Your task to perform on an android device: Go to Yahoo.com Image 0: 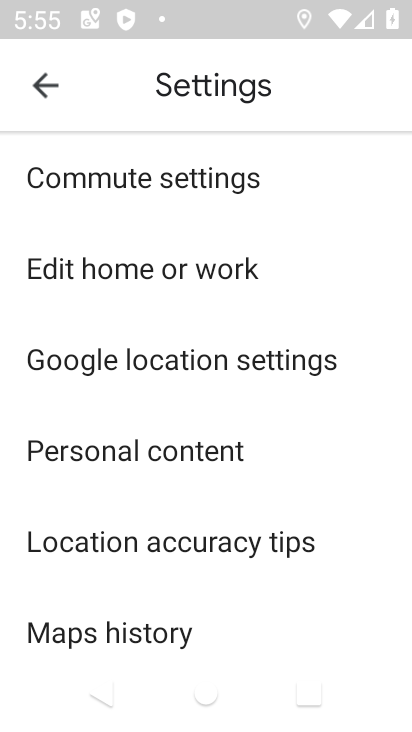
Step 0: press back button
Your task to perform on an android device: Go to Yahoo.com Image 1: 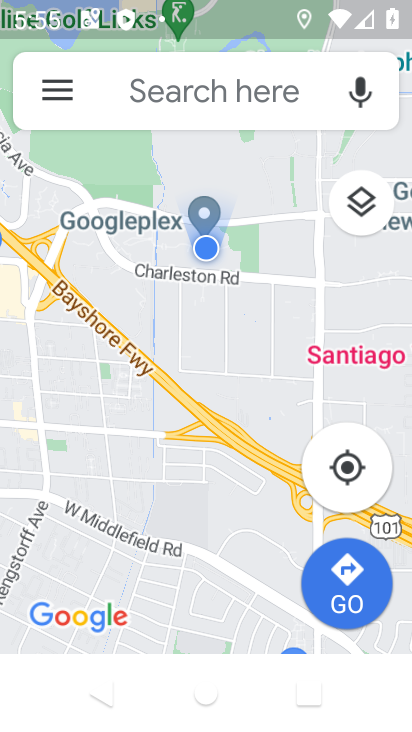
Step 1: press back button
Your task to perform on an android device: Go to Yahoo.com Image 2: 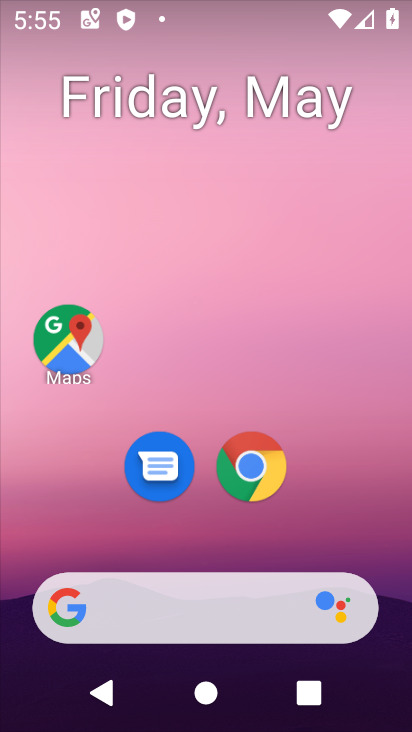
Step 2: click (252, 467)
Your task to perform on an android device: Go to Yahoo.com Image 3: 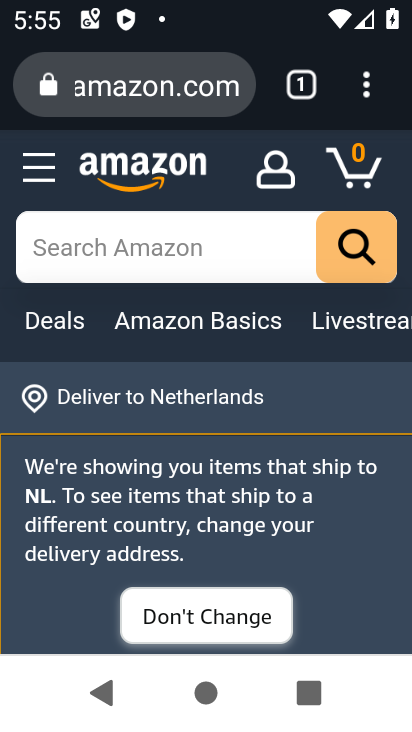
Step 3: click (137, 92)
Your task to perform on an android device: Go to Yahoo.com Image 4: 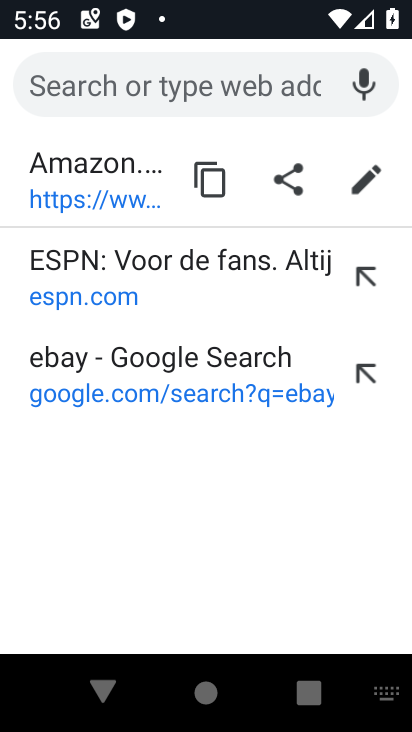
Step 4: type "Yahoo.com"
Your task to perform on an android device: Go to Yahoo.com Image 5: 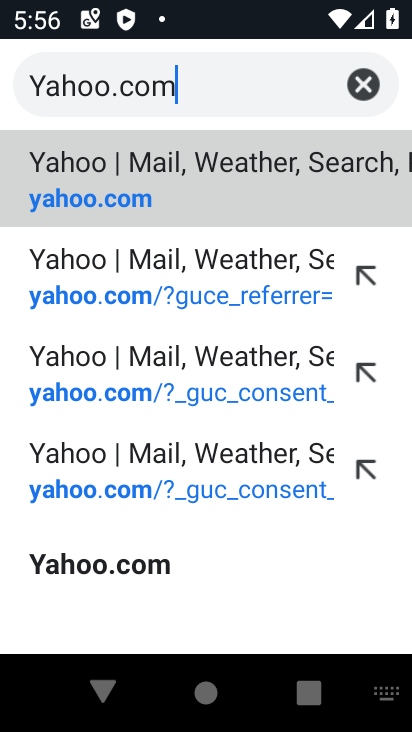
Step 5: type ""
Your task to perform on an android device: Go to Yahoo.com Image 6: 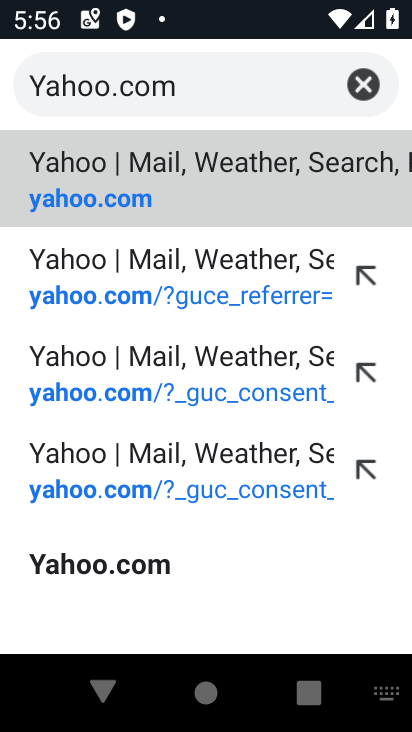
Step 6: click (301, 184)
Your task to perform on an android device: Go to Yahoo.com Image 7: 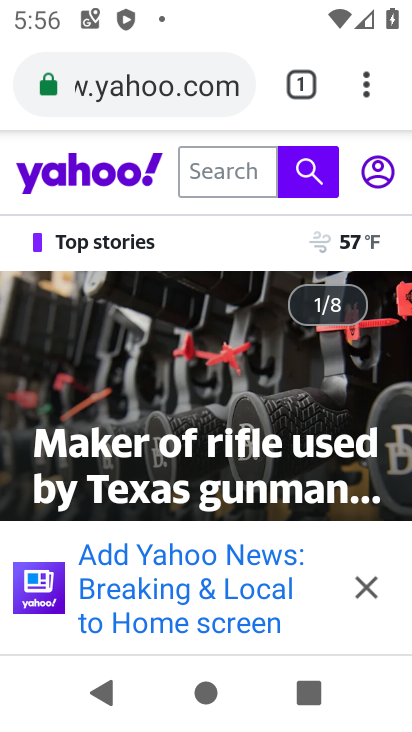
Step 7: task complete